Your task to perform on an android device: turn on data saver in the chrome app Image 0: 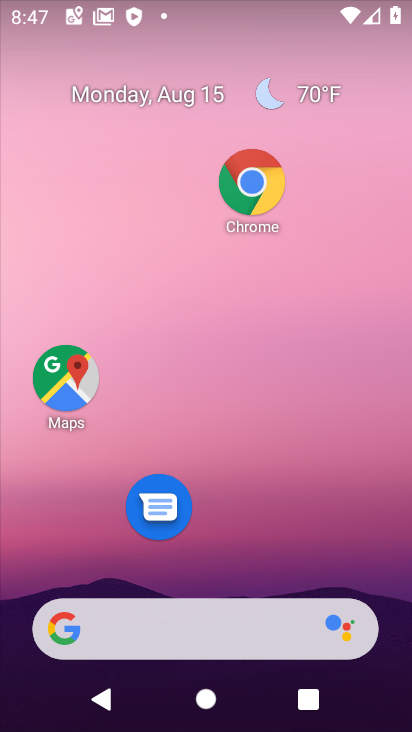
Step 0: click (256, 228)
Your task to perform on an android device: turn on data saver in the chrome app Image 1: 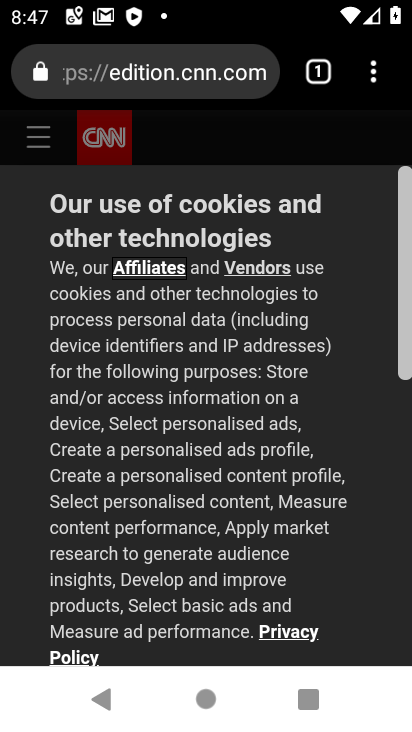
Step 1: click (369, 77)
Your task to perform on an android device: turn on data saver in the chrome app Image 2: 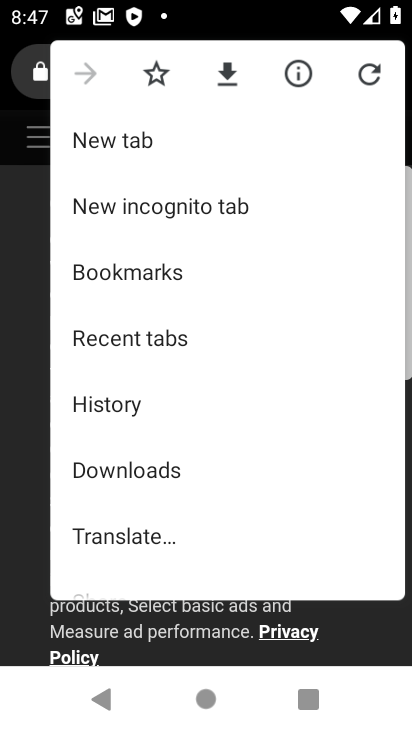
Step 2: click (149, 137)
Your task to perform on an android device: turn on data saver in the chrome app Image 3: 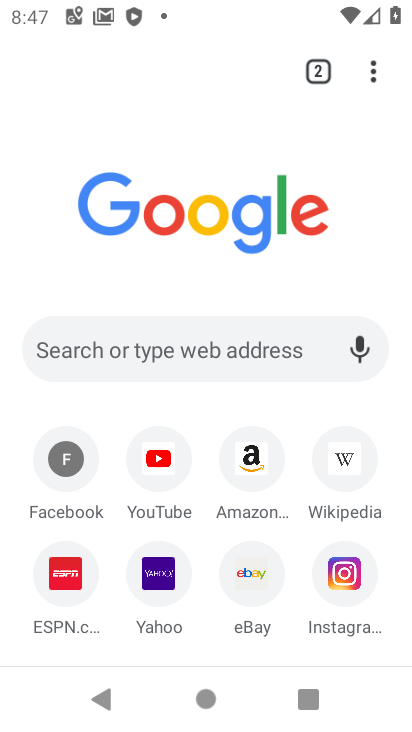
Step 3: click (371, 64)
Your task to perform on an android device: turn on data saver in the chrome app Image 4: 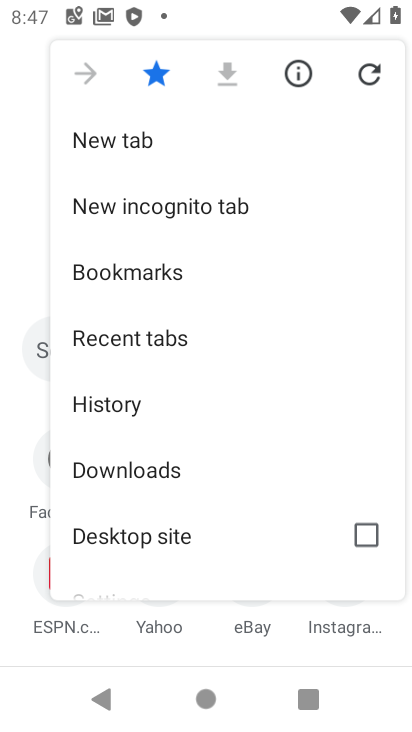
Step 4: drag from (229, 549) to (223, 223)
Your task to perform on an android device: turn on data saver in the chrome app Image 5: 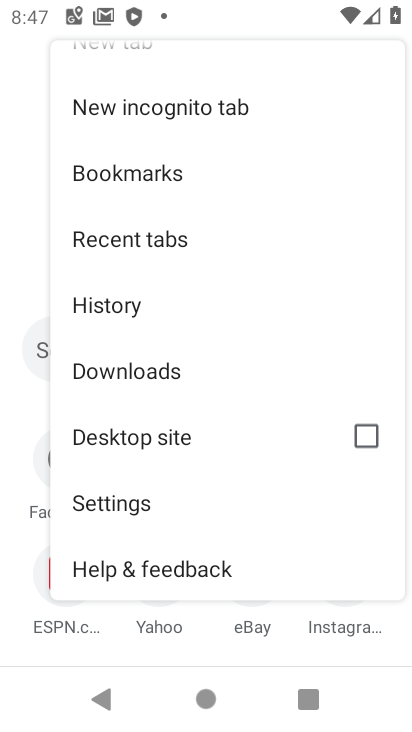
Step 5: click (182, 499)
Your task to perform on an android device: turn on data saver in the chrome app Image 6: 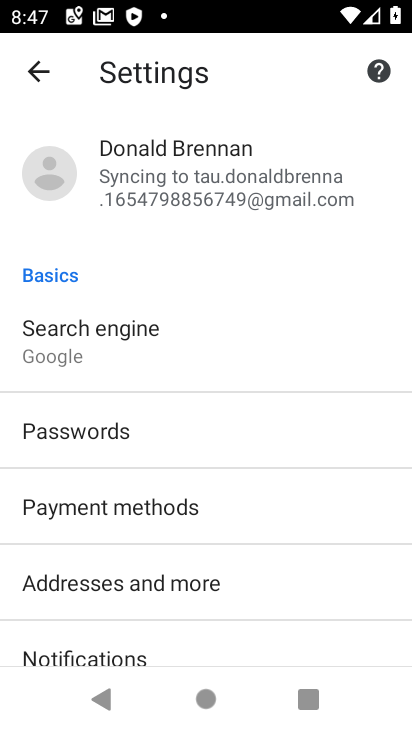
Step 6: drag from (99, 664) to (135, 242)
Your task to perform on an android device: turn on data saver in the chrome app Image 7: 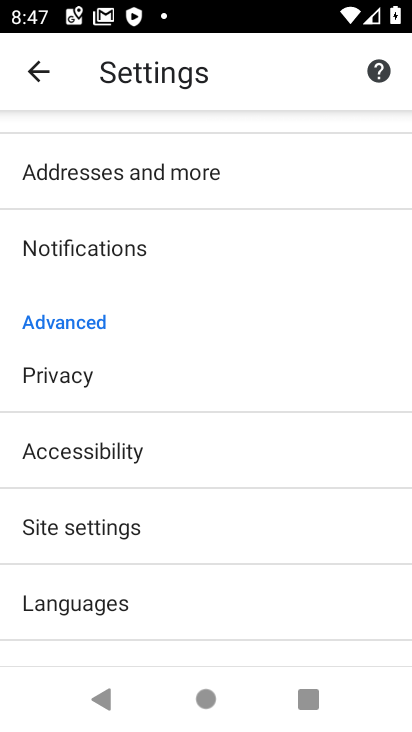
Step 7: drag from (129, 576) to (133, 272)
Your task to perform on an android device: turn on data saver in the chrome app Image 8: 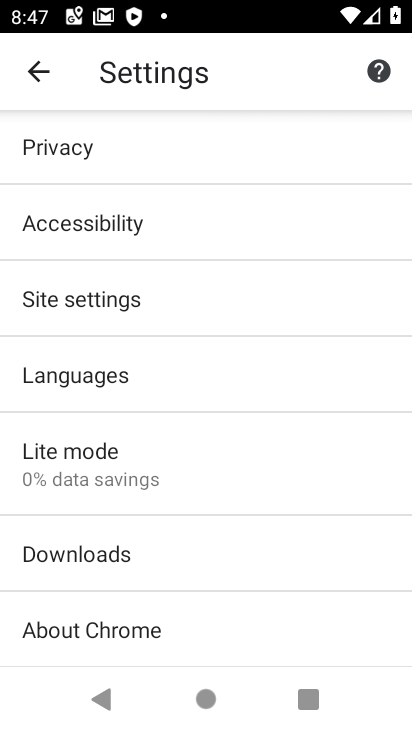
Step 8: click (186, 473)
Your task to perform on an android device: turn on data saver in the chrome app Image 9: 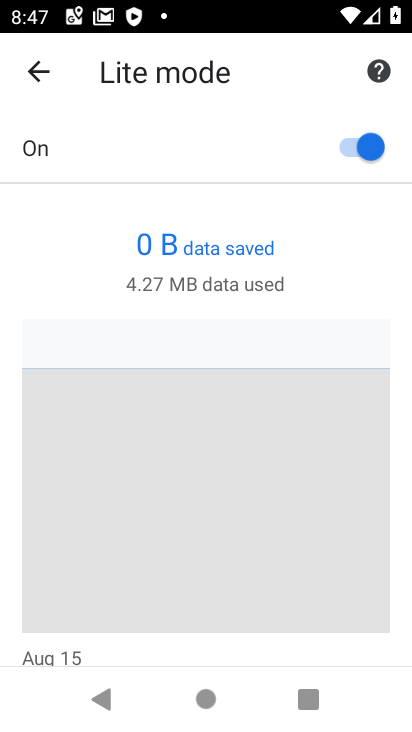
Step 9: task complete